Your task to perform on an android device: toggle data saver in the chrome app Image 0: 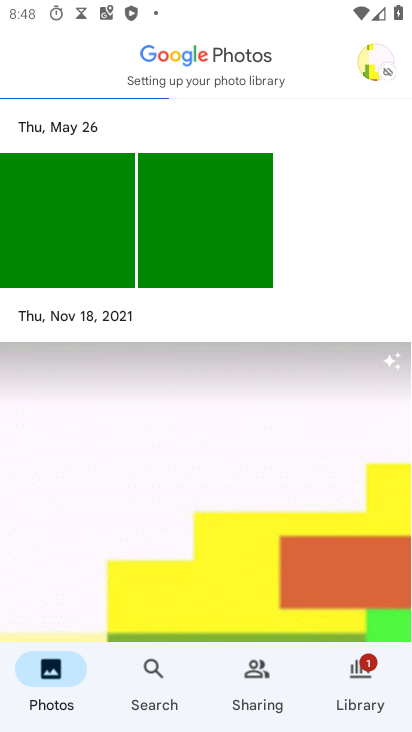
Step 0: press back button
Your task to perform on an android device: toggle data saver in the chrome app Image 1: 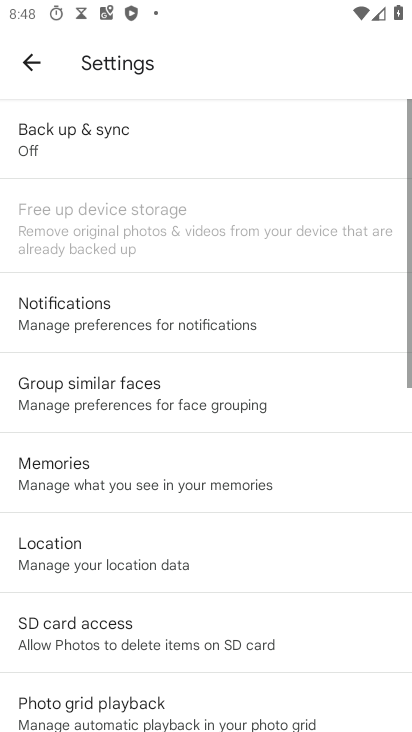
Step 1: press back button
Your task to perform on an android device: toggle data saver in the chrome app Image 2: 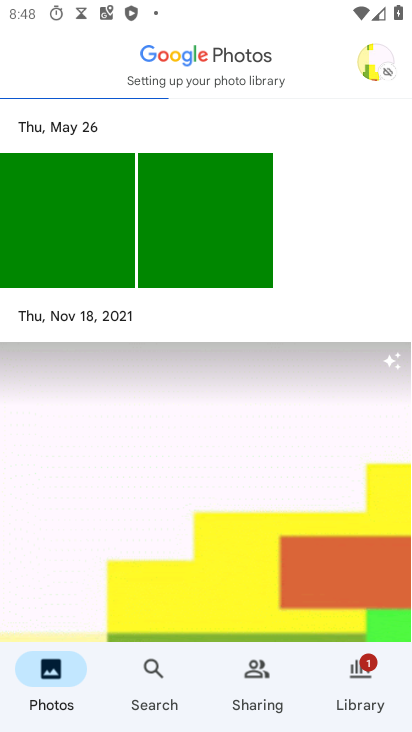
Step 2: press home button
Your task to perform on an android device: toggle data saver in the chrome app Image 3: 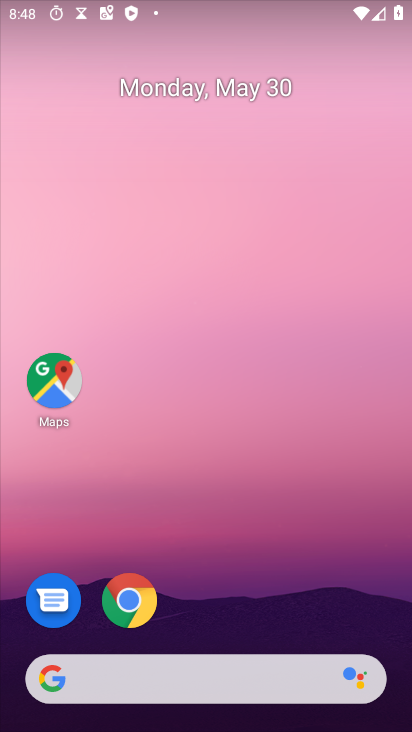
Step 3: drag from (249, 628) to (212, 8)
Your task to perform on an android device: toggle data saver in the chrome app Image 4: 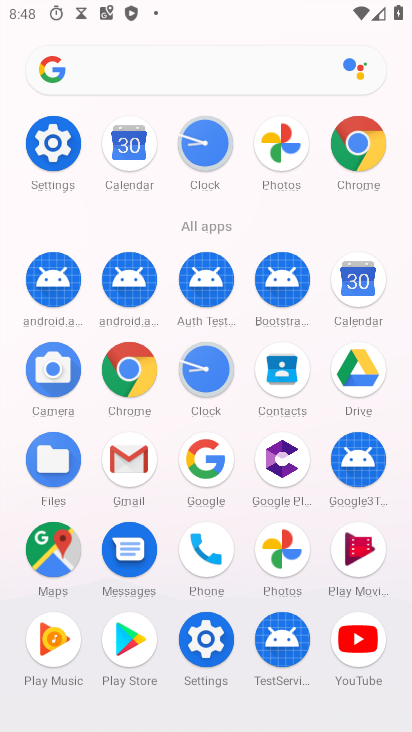
Step 4: drag from (0, 607) to (11, 342)
Your task to perform on an android device: toggle data saver in the chrome app Image 5: 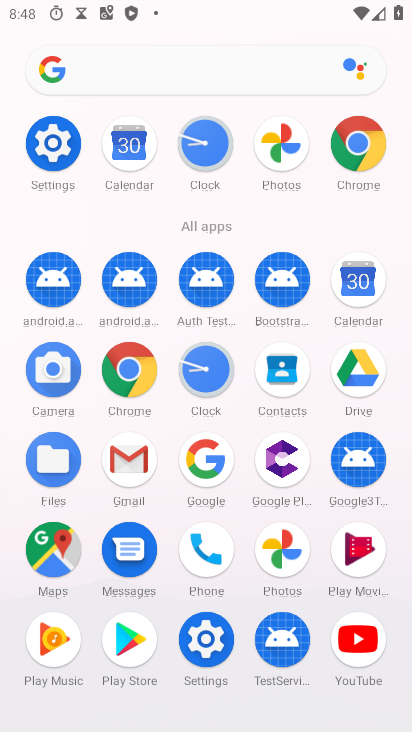
Step 5: click (125, 367)
Your task to perform on an android device: toggle data saver in the chrome app Image 6: 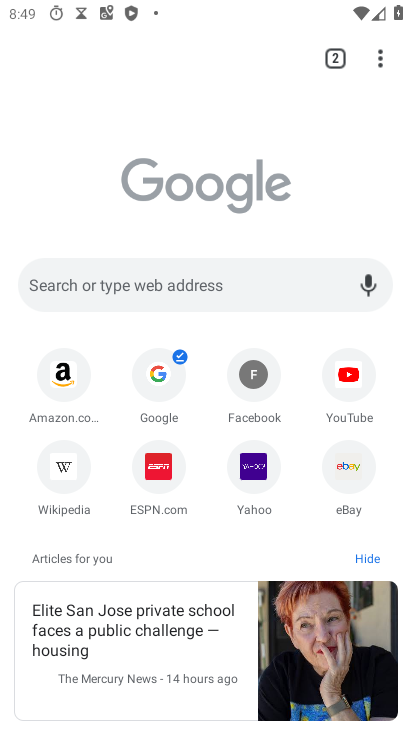
Step 6: drag from (375, 54) to (162, 482)
Your task to perform on an android device: toggle data saver in the chrome app Image 7: 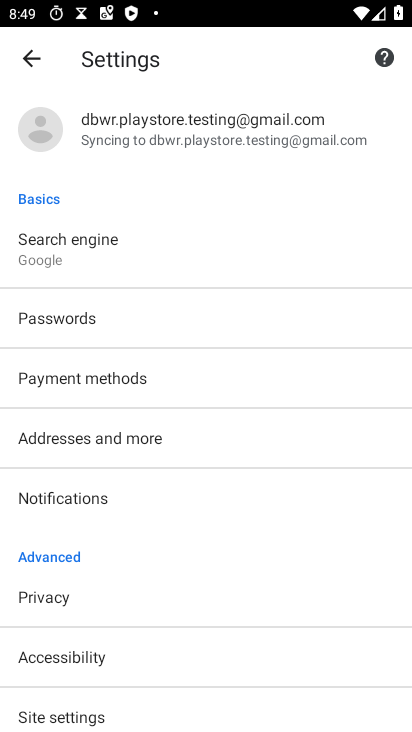
Step 7: drag from (210, 559) to (206, 168)
Your task to perform on an android device: toggle data saver in the chrome app Image 8: 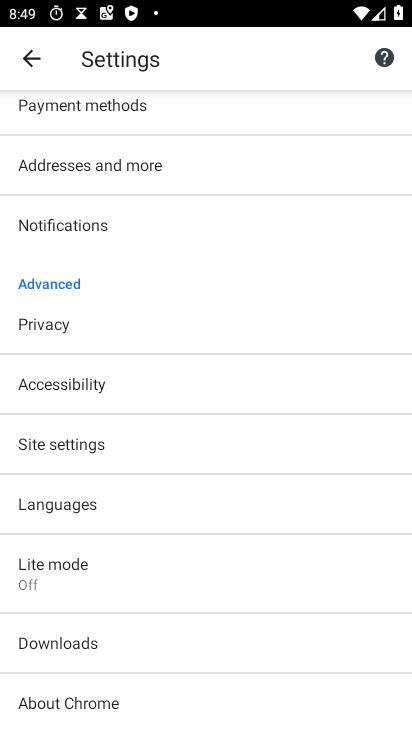
Step 8: click (93, 568)
Your task to perform on an android device: toggle data saver in the chrome app Image 9: 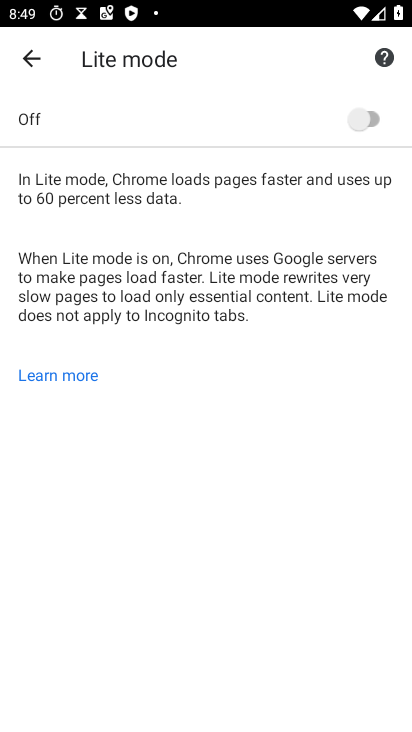
Step 9: click (355, 103)
Your task to perform on an android device: toggle data saver in the chrome app Image 10: 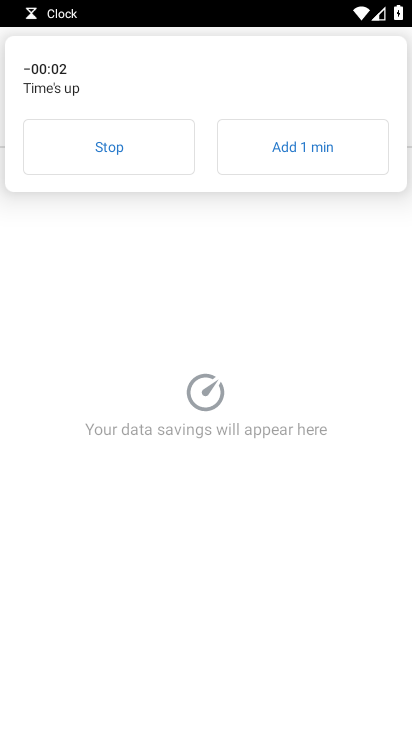
Step 10: click (127, 143)
Your task to perform on an android device: toggle data saver in the chrome app Image 11: 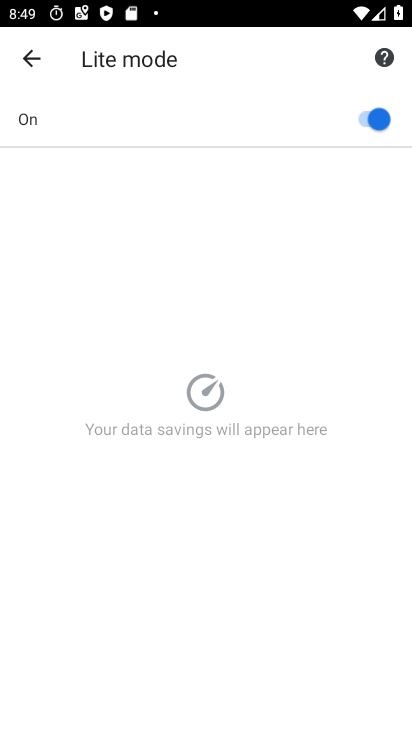
Step 11: task complete